Your task to perform on an android device: Toggle the flashlight Image 0: 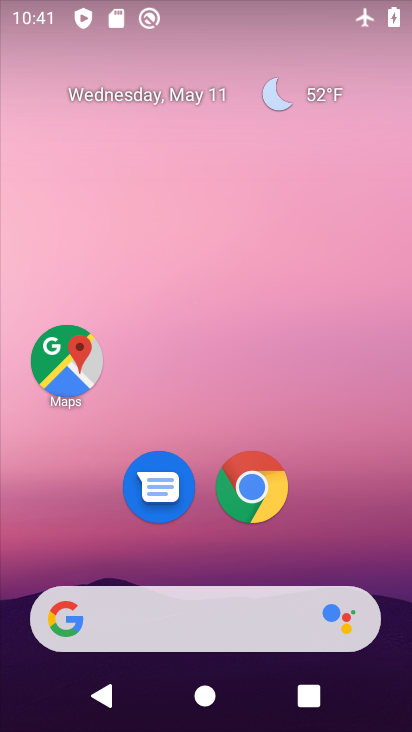
Step 0: drag from (347, 497) to (246, 34)
Your task to perform on an android device: Toggle the flashlight Image 1: 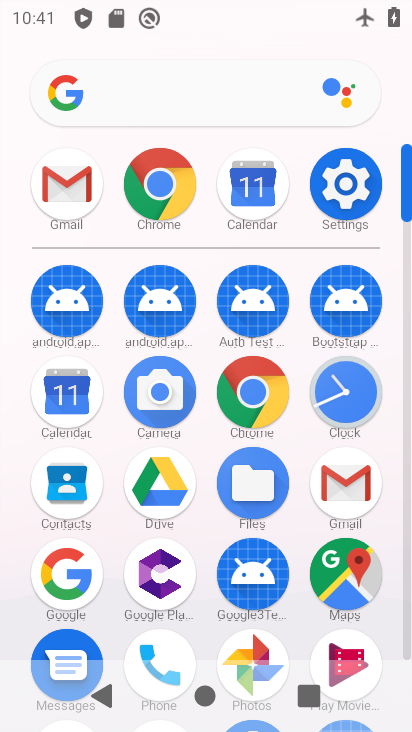
Step 1: click (345, 181)
Your task to perform on an android device: Toggle the flashlight Image 2: 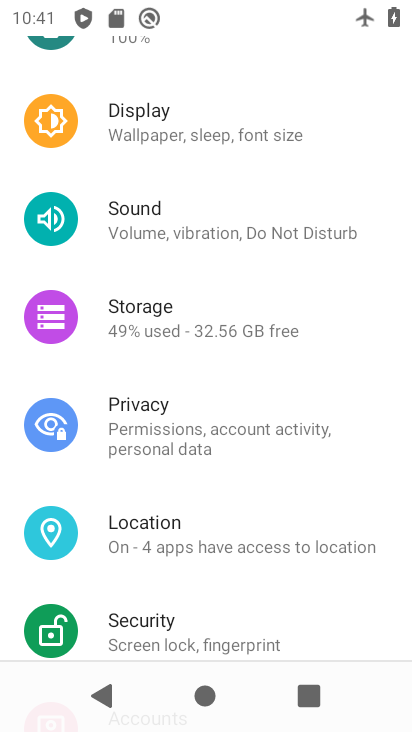
Step 2: drag from (333, 160) to (355, 545)
Your task to perform on an android device: Toggle the flashlight Image 3: 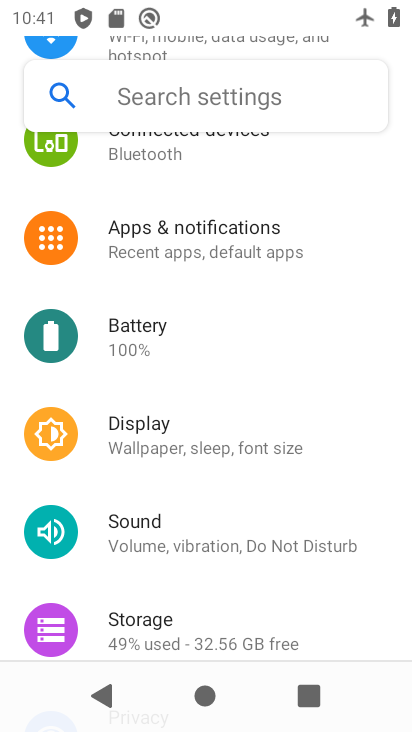
Step 3: drag from (348, 205) to (314, 578)
Your task to perform on an android device: Toggle the flashlight Image 4: 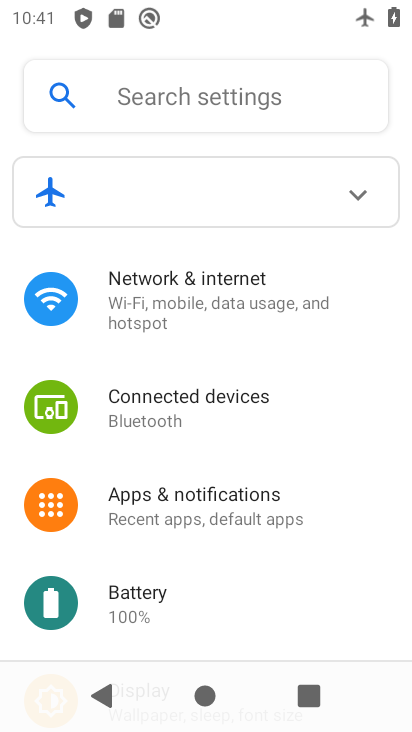
Step 4: click (213, 294)
Your task to perform on an android device: Toggle the flashlight Image 5: 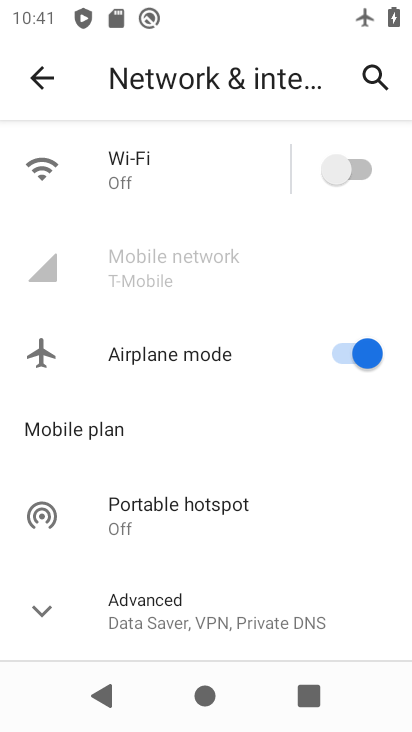
Step 5: drag from (224, 536) to (202, 134)
Your task to perform on an android device: Toggle the flashlight Image 6: 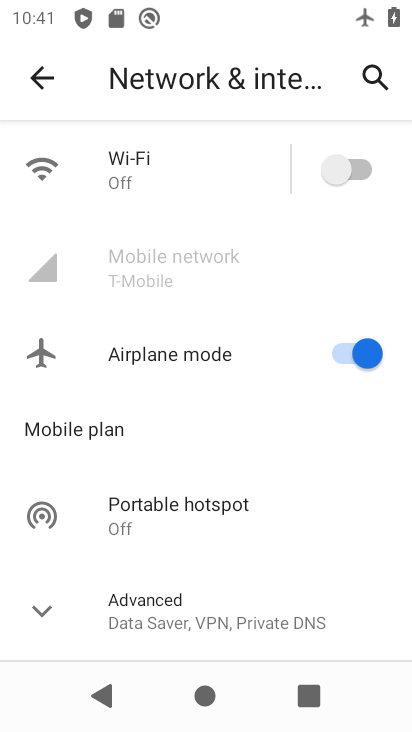
Step 6: click (32, 607)
Your task to perform on an android device: Toggle the flashlight Image 7: 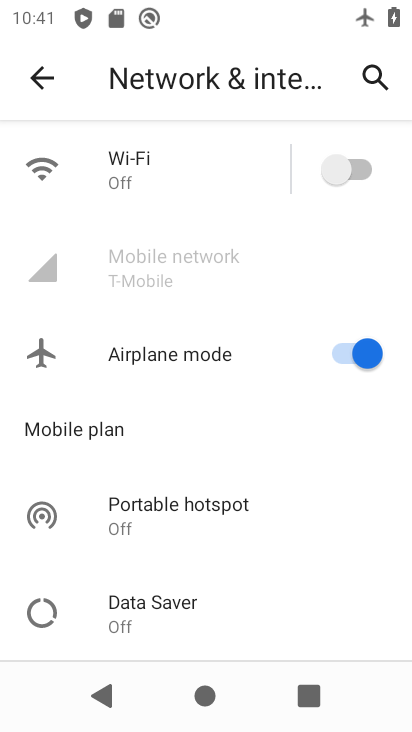
Step 7: task complete